Your task to perform on an android device: open a new tab in the chrome app Image 0: 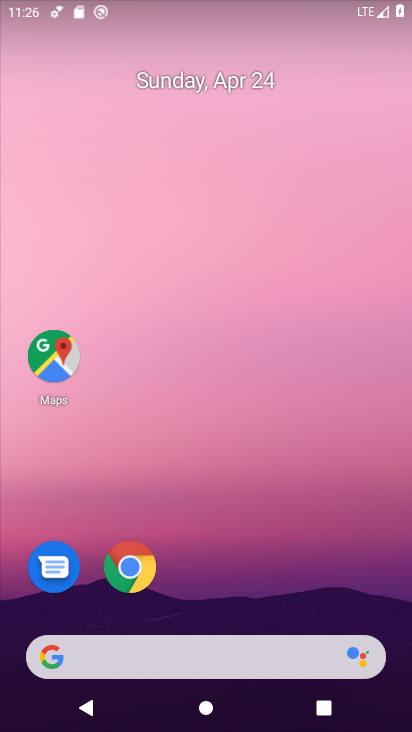
Step 0: drag from (264, 524) to (293, 160)
Your task to perform on an android device: open a new tab in the chrome app Image 1: 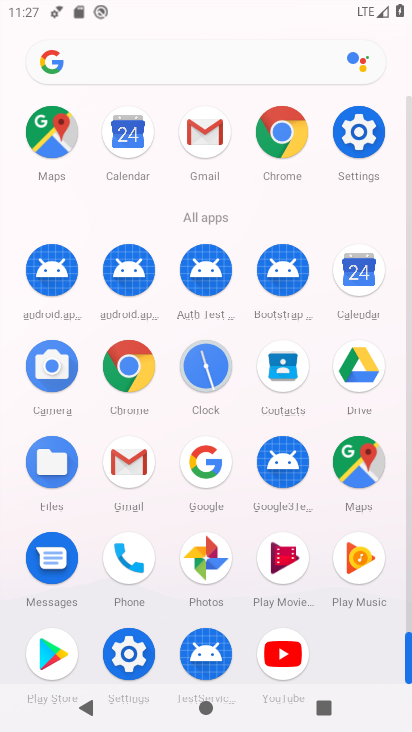
Step 1: click (277, 135)
Your task to perform on an android device: open a new tab in the chrome app Image 2: 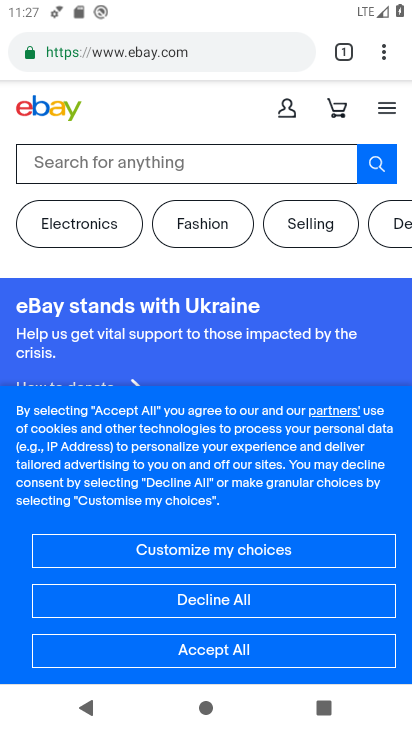
Step 2: drag from (343, 50) to (354, 305)
Your task to perform on an android device: open a new tab in the chrome app Image 3: 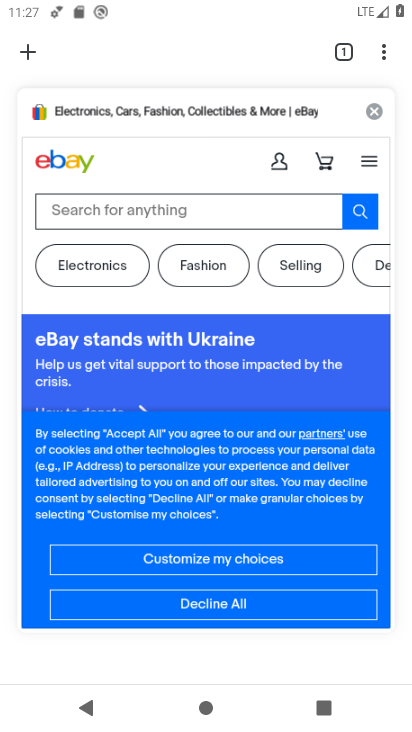
Step 3: click (30, 50)
Your task to perform on an android device: open a new tab in the chrome app Image 4: 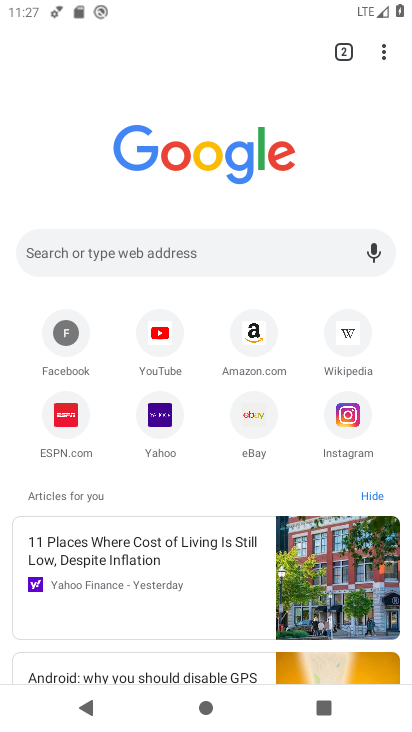
Step 4: task complete